Your task to perform on an android device: Open ESPN.com Image 0: 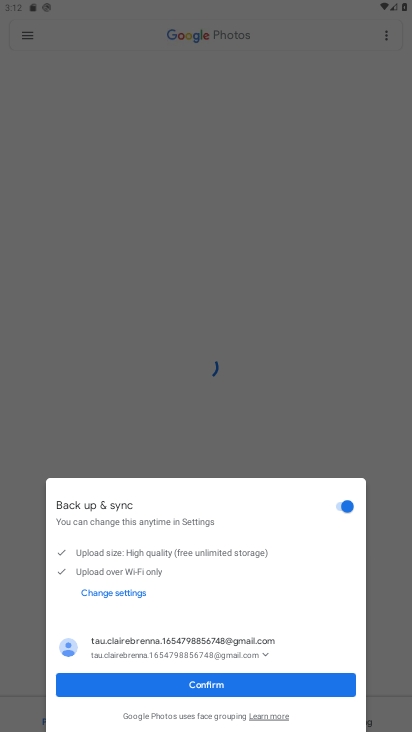
Step 0: press home button
Your task to perform on an android device: Open ESPN.com Image 1: 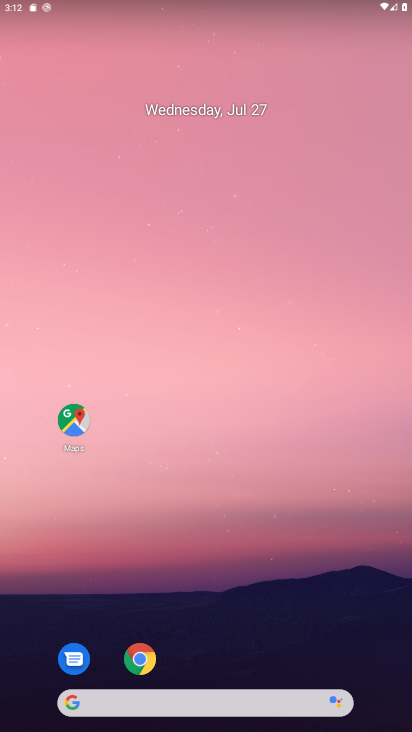
Step 1: click (150, 661)
Your task to perform on an android device: Open ESPN.com Image 2: 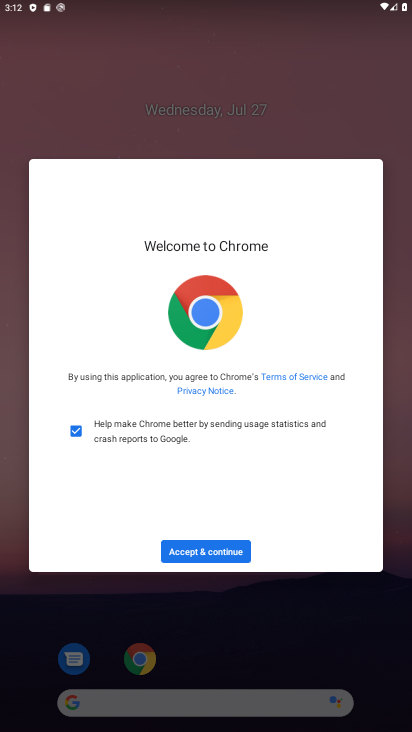
Step 2: click (209, 545)
Your task to perform on an android device: Open ESPN.com Image 3: 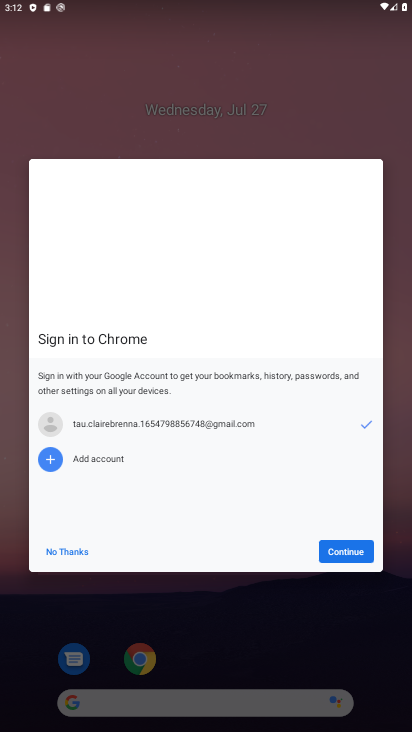
Step 3: click (351, 541)
Your task to perform on an android device: Open ESPN.com Image 4: 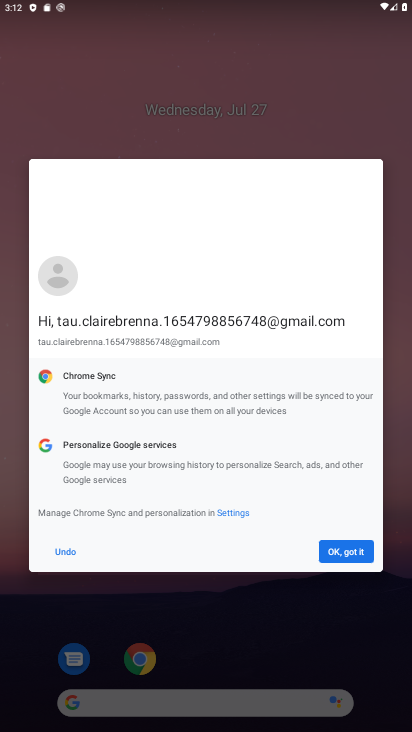
Step 4: click (351, 541)
Your task to perform on an android device: Open ESPN.com Image 5: 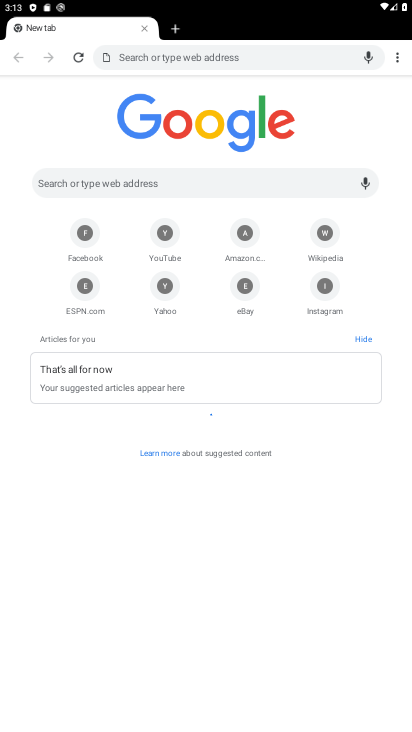
Step 5: click (64, 300)
Your task to perform on an android device: Open ESPN.com Image 6: 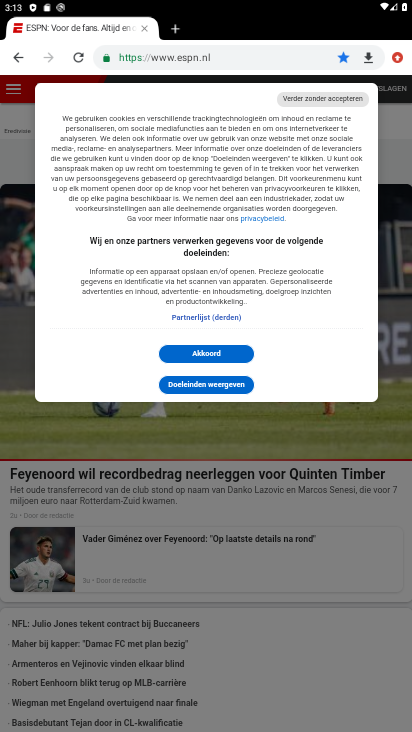
Step 6: task complete